Your task to perform on an android device: Open the Play Movies app and select the watchlist tab. Image 0: 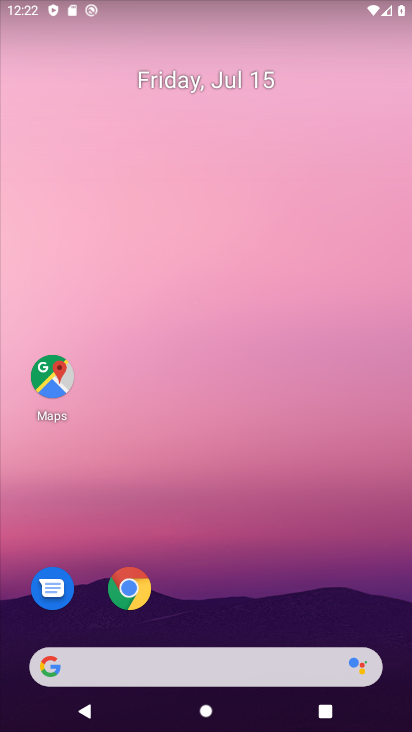
Step 0: drag from (226, 613) to (250, 102)
Your task to perform on an android device: Open the Play Movies app and select the watchlist tab. Image 1: 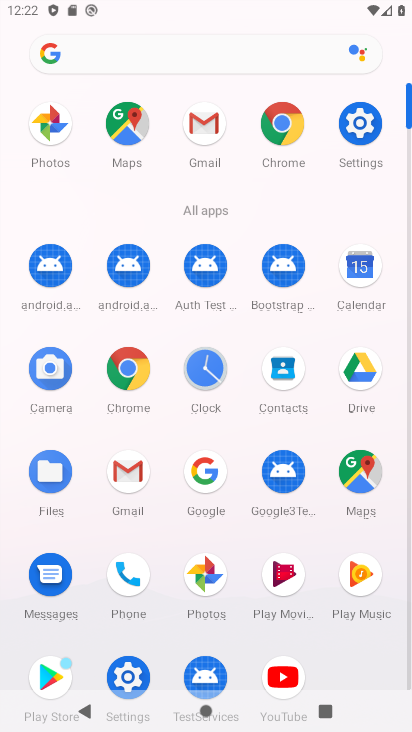
Step 1: click (282, 586)
Your task to perform on an android device: Open the Play Movies app and select the watchlist tab. Image 2: 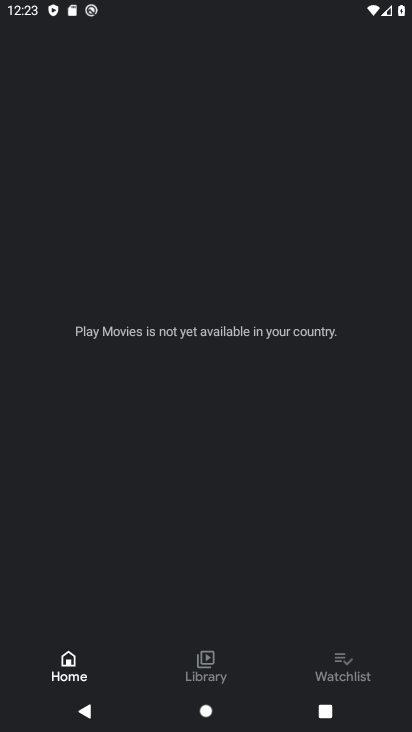
Step 2: click (329, 653)
Your task to perform on an android device: Open the Play Movies app and select the watchlist tab. Image 3: 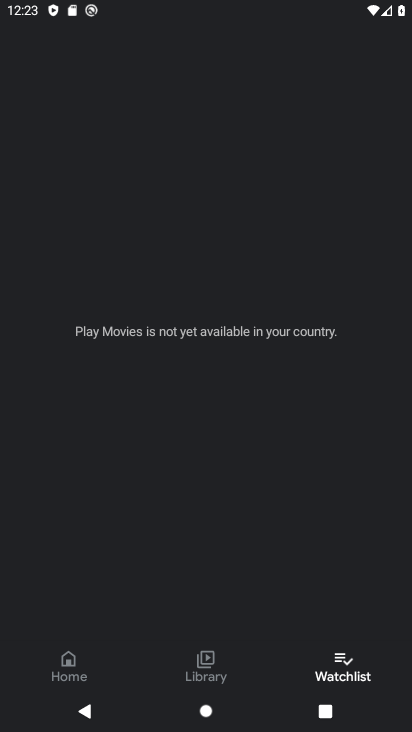
Step 3: task complete